Your task to perform on an android device: delete a single message in the gmail app Image 0: 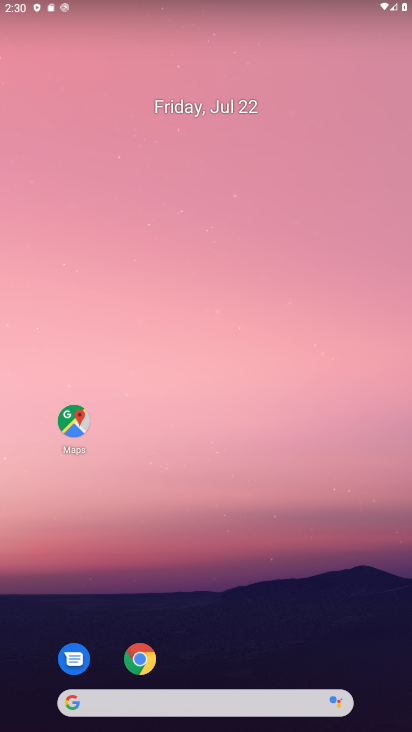
Step 0: task complete